Your task to perform on an android device: Is it going to rain this weekend? Image 0: 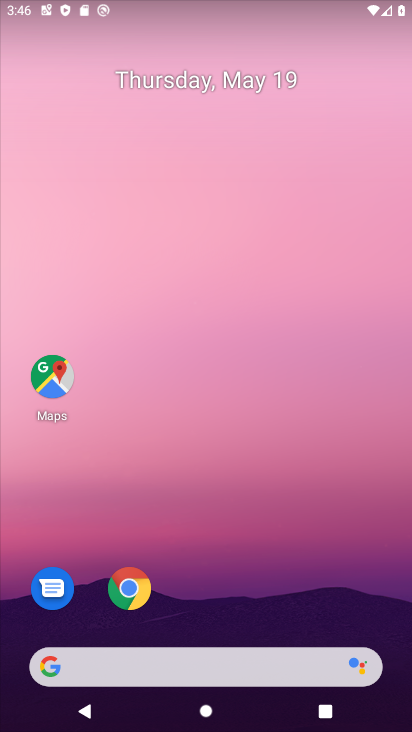
Step 0: click (254, 76)
Your task to perform on an android device: Is it going to rain this weekend? Image 1: 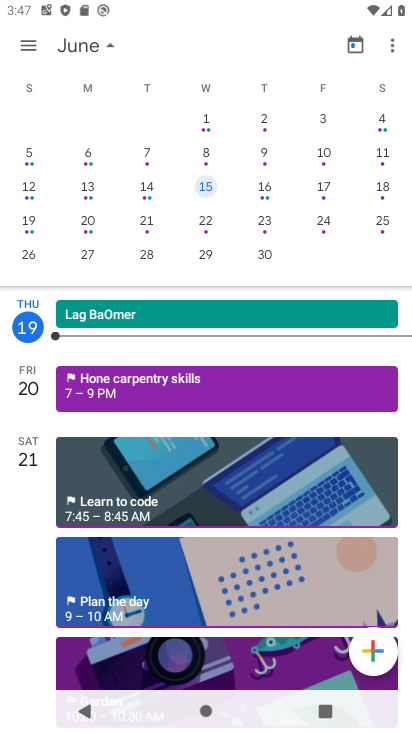
Step 1: press home button
Your task to perform on an android device: Is it going to rain this weekend? Image 2: 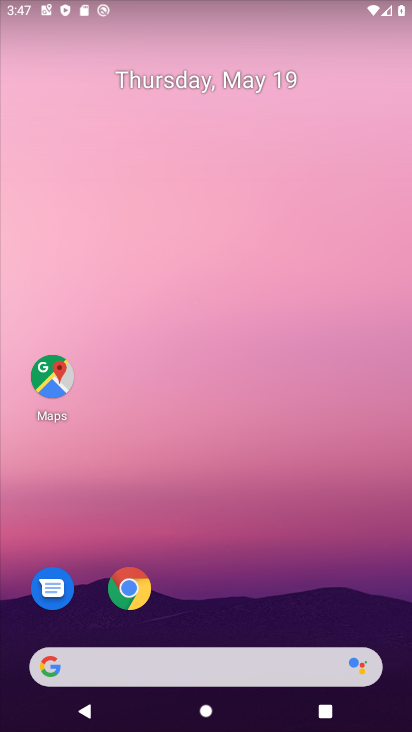
Step 2: click (283, 667)
Your task to perform on an android device: Is it going to rain this weekend? Image 3: 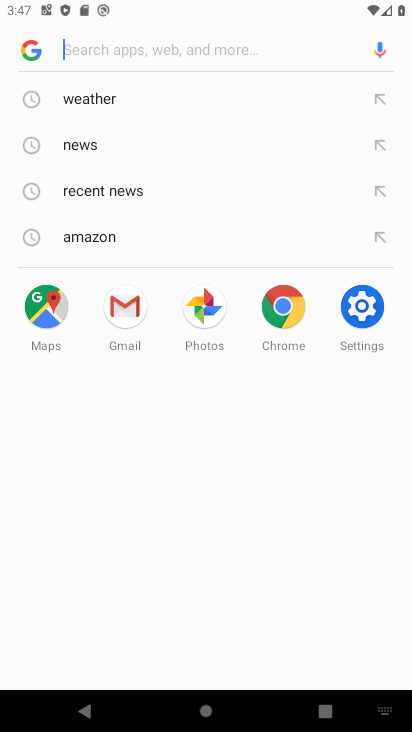
Step 3: click (168, 90)
Your task to perform on an android device: Is it going to rain this weekend? Image 4: 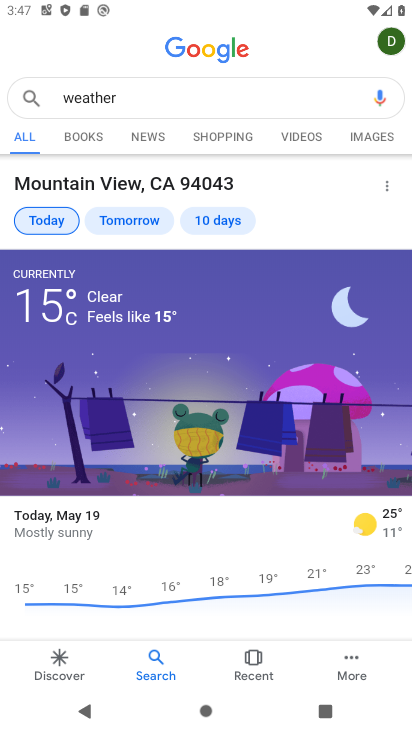
Step 4: click (227, 227)
Your task to perform on an android device: Is it going to rain this weekend? Image 5: 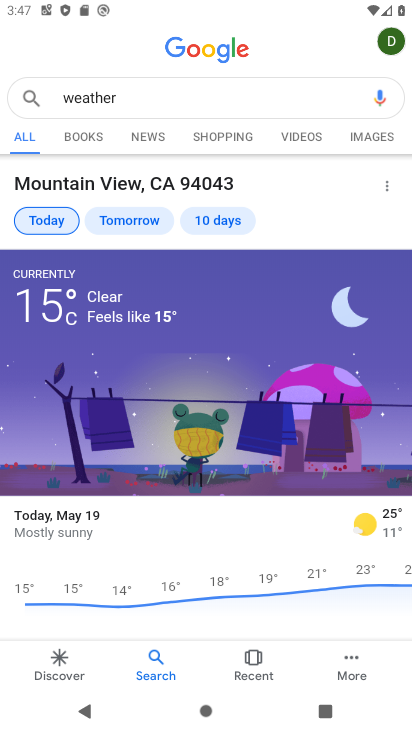
Step 5: click (227, 227)
Your task to perform on an android device: Is it going to rain this weekend? Image 6: 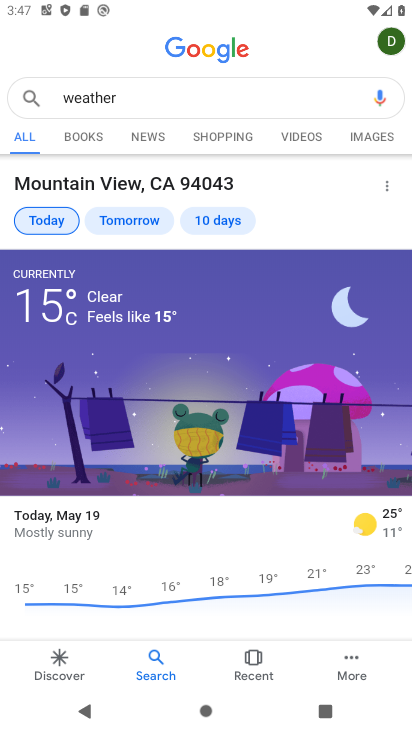
Step 6: click (227, 227)
Your task to perform on an android device: Is it going to rain this weekend? Image 7: 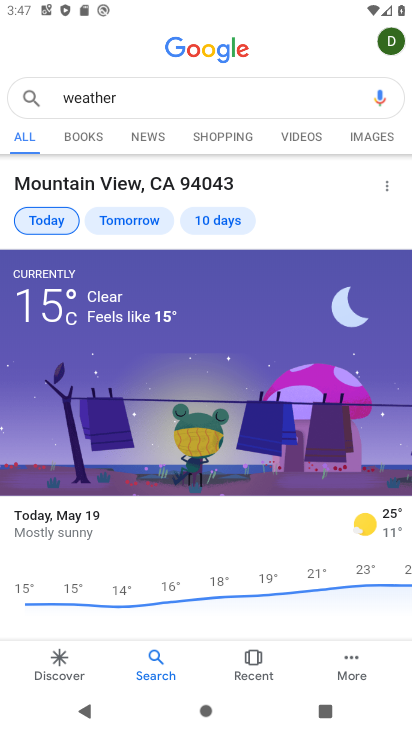
Step 7: click (227, 227)
Your task to perform on an android device: Is it going to rain this weekend? Image 8: 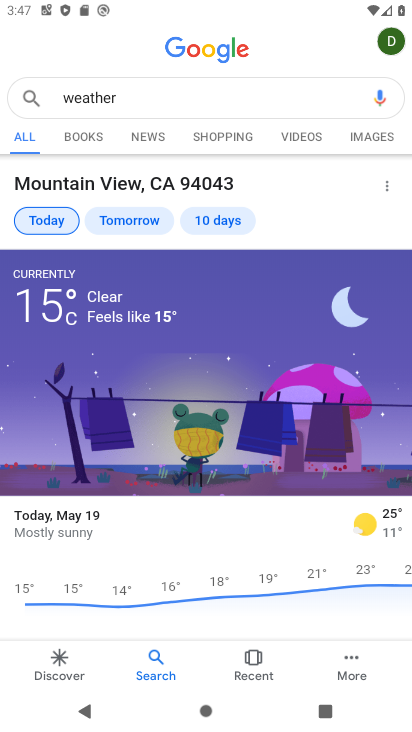
Step 8: click (227, 227)
Your task to perform on an android device: Is it going to rain this weekend? Image 9: 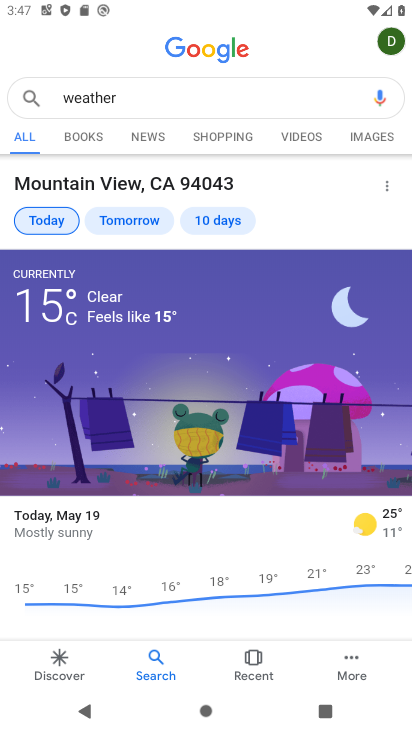
Step 9: click (227, 227)
Your task to perform on an android device: Is it going to rain this weekend? Image 10: 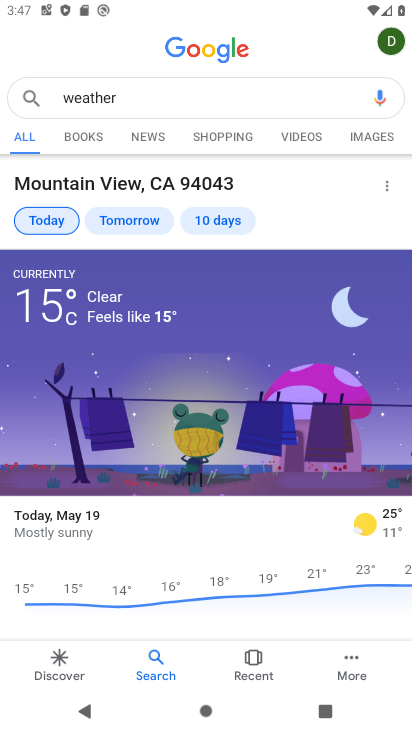
Step 10: click (121, 563)
Your task to perform on an android device: Is it going to rain this weekend? Image 11: 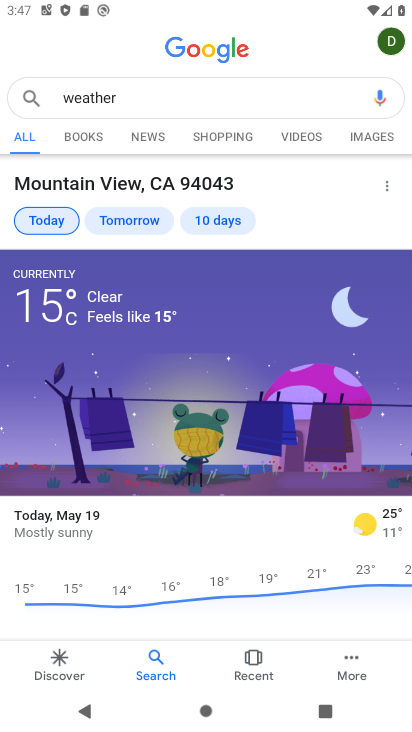
Step 11: drag from (180, 545) to (201, 142)
Your task to perform on an android device: Is it going to rain this weekend? Image 12: 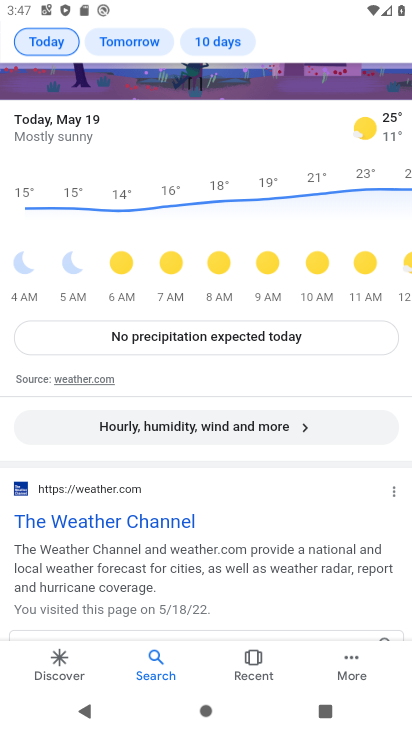
Step 12: click (78, 376)
Your task to perform on an android device: Is it going to rain this weekend? Image 13: 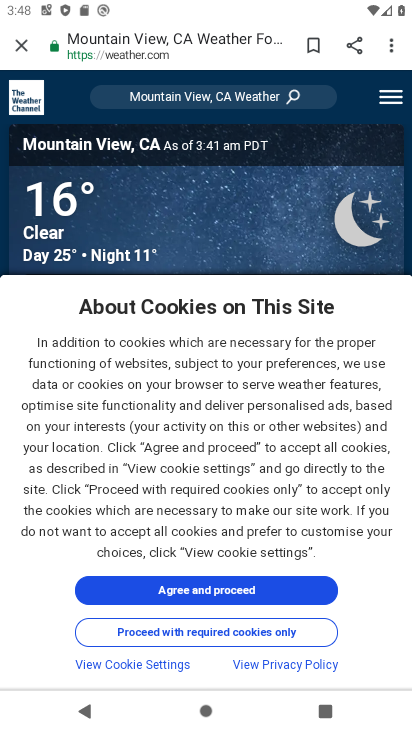
Step 13: click (181, 185)
Your task to perform on an android device: Is it going to rain this weekend? Image 14: 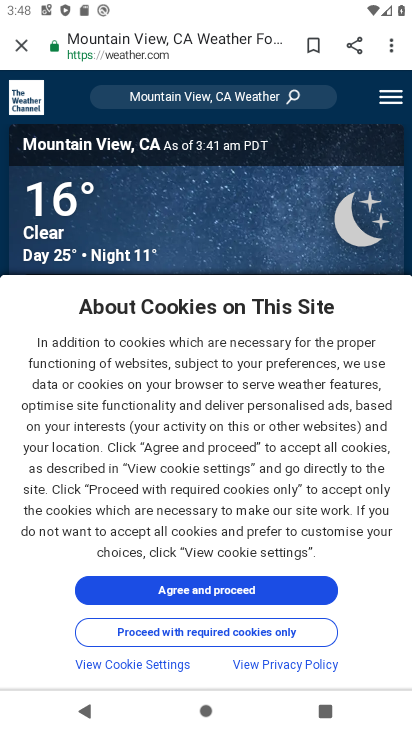
Step 14: click (181, 185)
Your task to perform on an android device: Is it going to rain this weekend? Image 15: 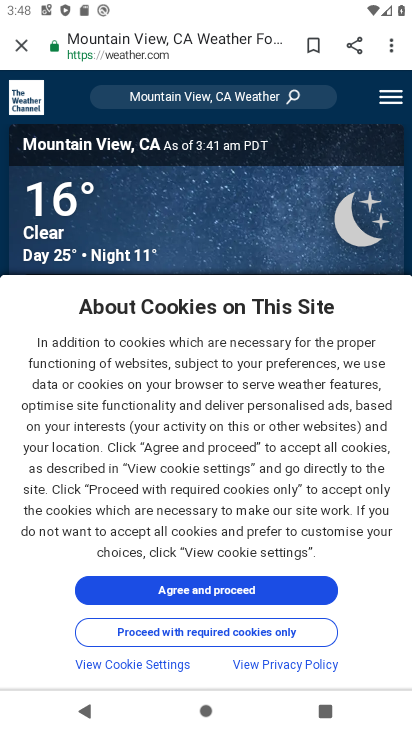
Step 15: click (225, 595)
Your task to perform on an android device: Is it going to rain this weekend? Image 16: 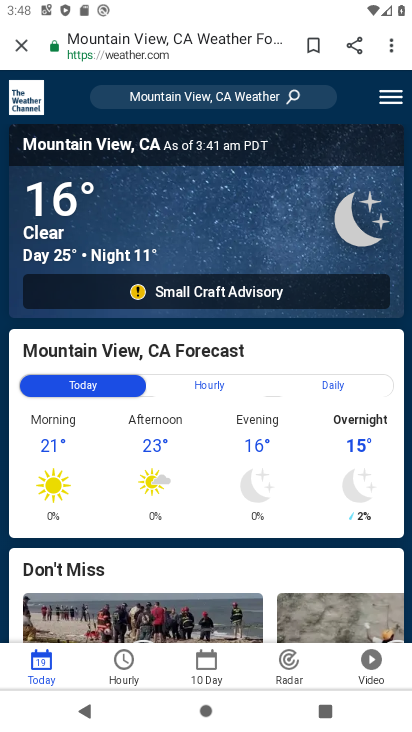
Step 16: click (209, 666)
Your task to perform on an android device: Is it going to rain this weekend? Image 17: 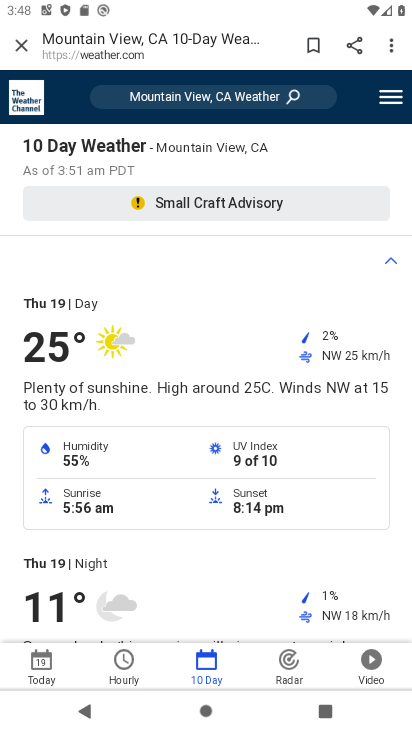
Step 17: task complete